Your task to perform on an android device: turn off location Image 0: 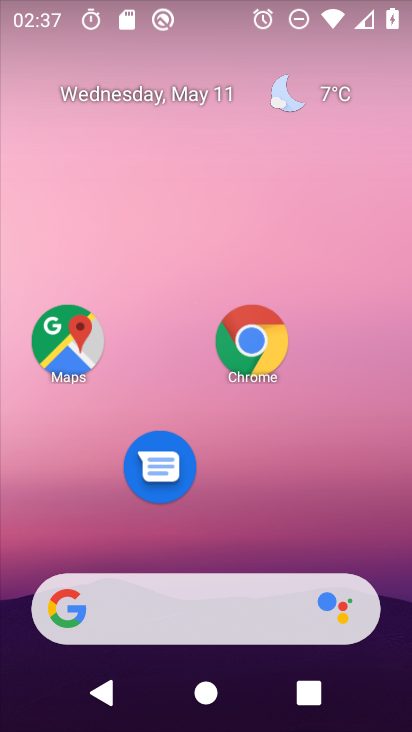
Step 0: press home button
Your task to perform on an android device: turn off location Image 1: 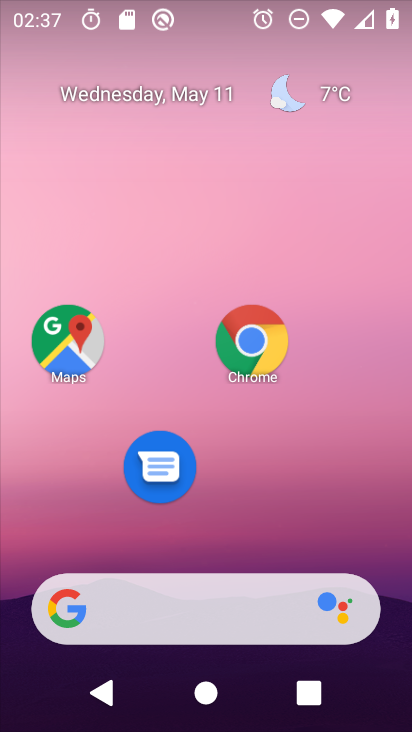
Step 1: drag from (163, 624) to (324, 65)
Your task to perform on an android device: turn off location Image 2: 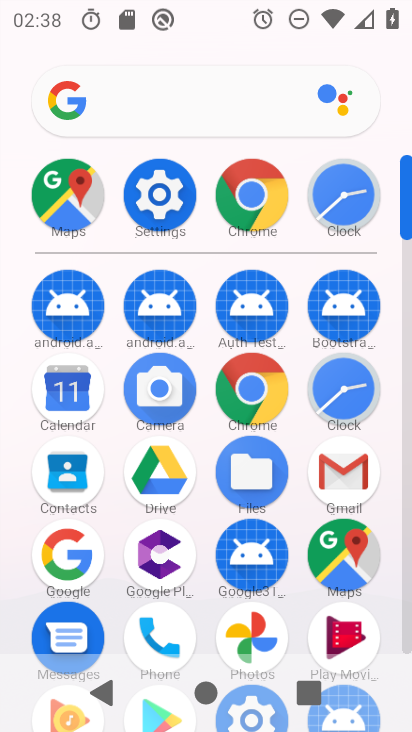
Step 2: click (165, 200)
Your task to perform on an android device: turn off location Image 3: 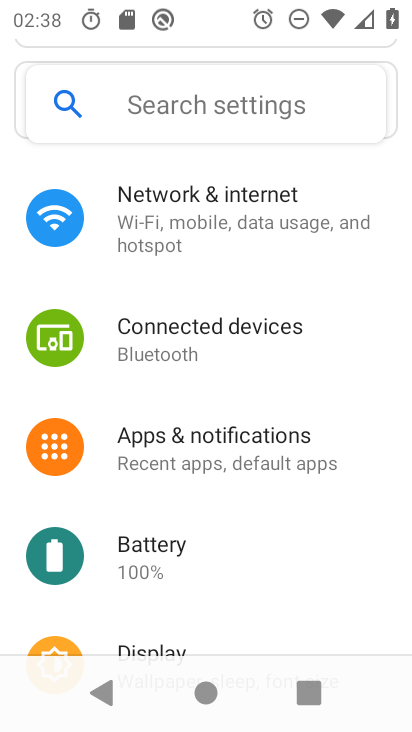
Step 3: drag from (222, 525) to (362, 108)
Your task to perform on an android device: turn off location Image 4: 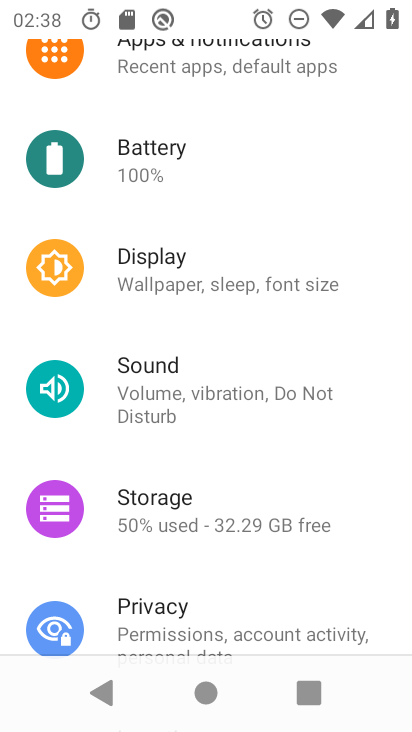
Step 4: drag from (228, 538) to (340, 156)
Your task to perform on an android device: turn off location Image 5: 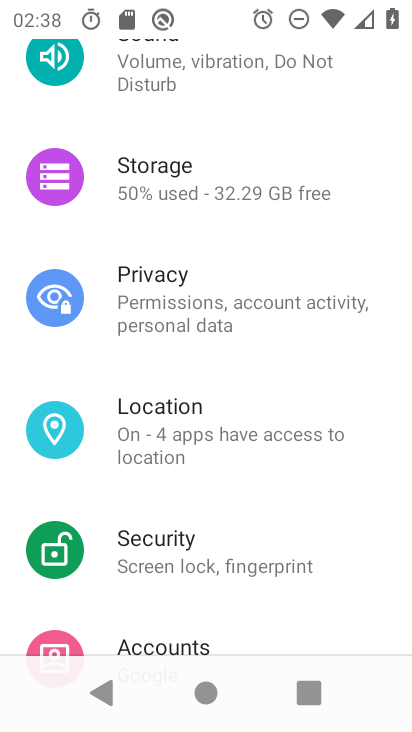
Step 5: click (173, 437)
Your task to perform on an android device: turn off location Image 6: 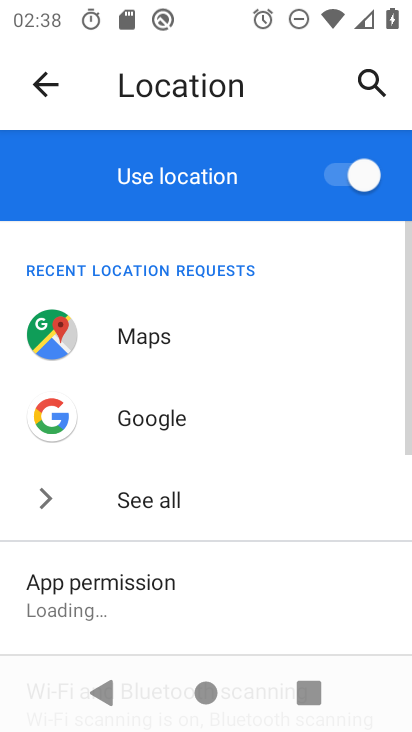
Step 6: click (339, 176)
Your task to perform on an android device: turn off location Image 7: 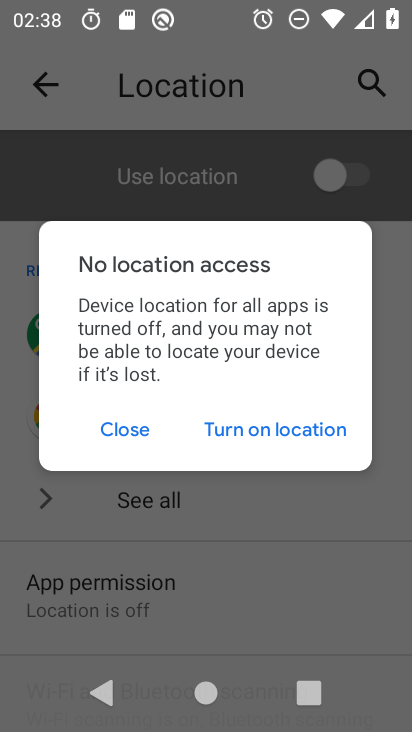
Step 7: task complete